Your task to perform on an android device: open chrome privacy settings Image 0: 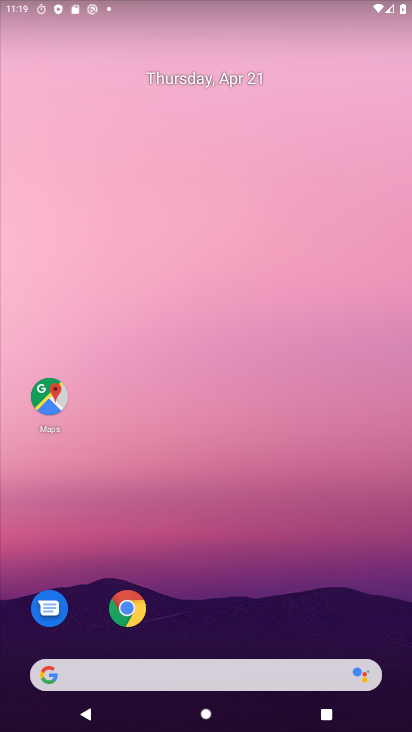
Step 0: click (126, 599)
Your task to perform on an android device: open chrome privacy settings Image 1: 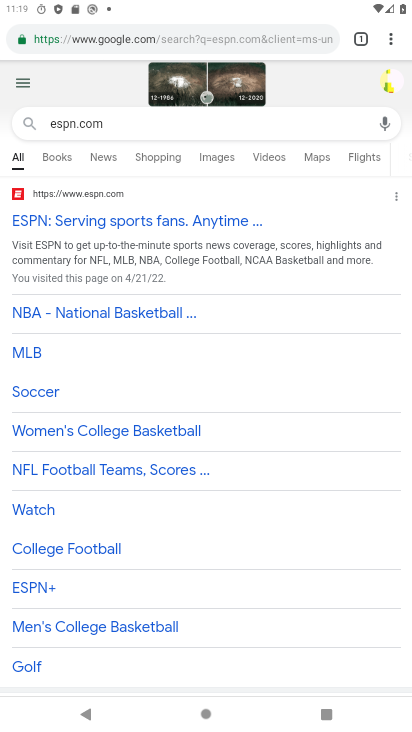
Step 1: click (386, 40)
Your task to perform on an android device: open chrome privacy settings Image 2: 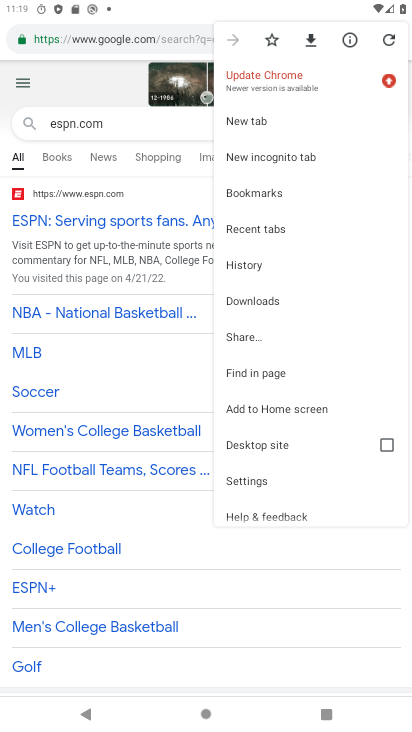
Step 2: click (257, 482)
Your task to perform on an android device: open chrome privacy settings Image 3: 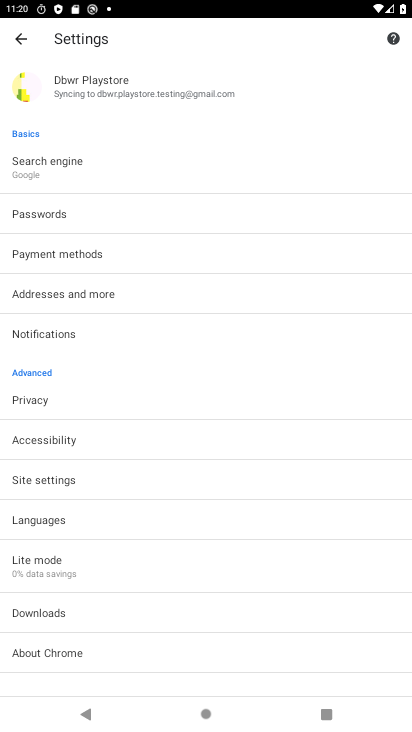
Step 3: click (72, 407)
Your task to perform on an android device: open chrome privacy settings Image 4: 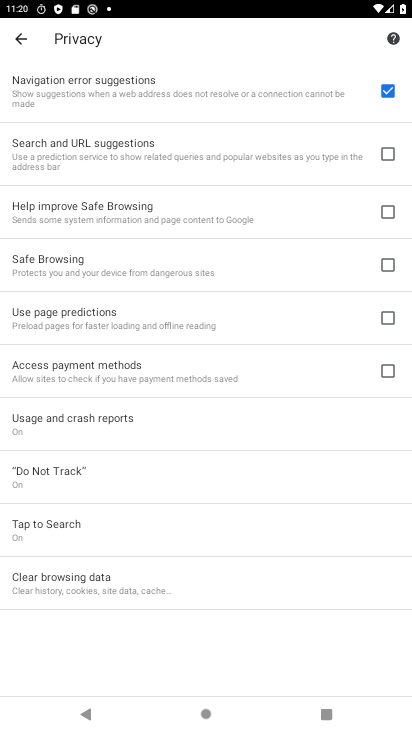
Step 4: task complete